Your task to perform on an android device: Open internet settings Image 0: 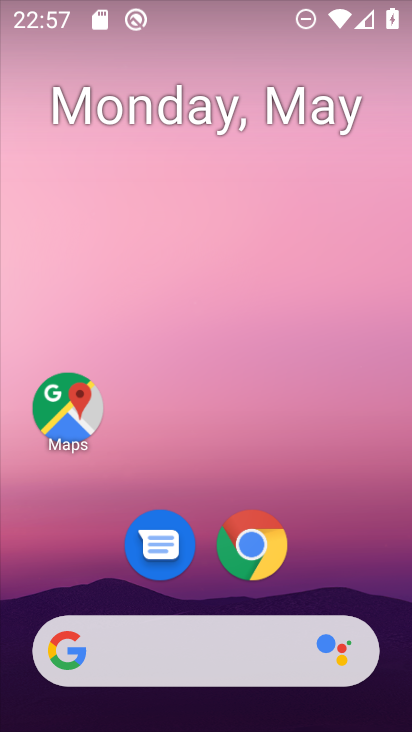
Step 0: drag from (334, 531) to (206, 1)
Your task to perform on an android device: Open internet settings Image 1: 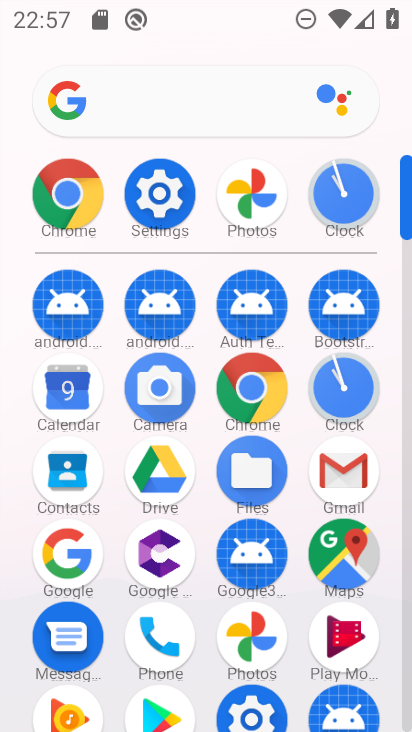
Step 1: click (158, 191)
Your task to perform on an android device: Open internet settings Image 2: 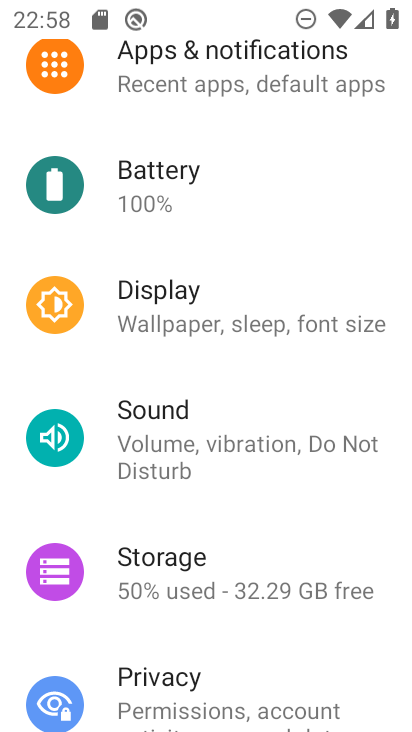
Step 2: drag from (256, 147) to (217, 688)
Your task to perform on an android device: Open internet settings Image 3: 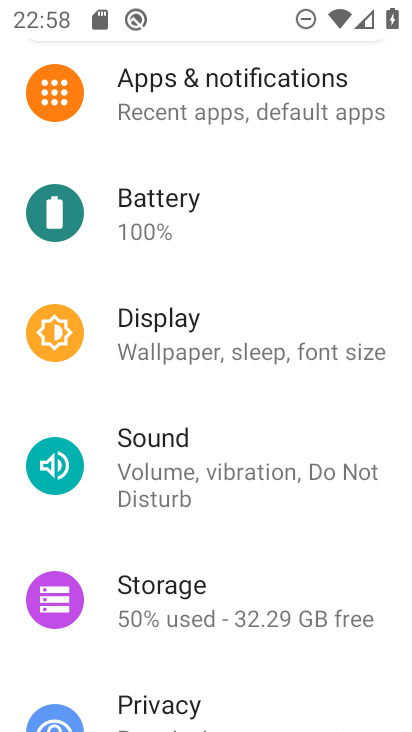
Step 3: drag from (227, 265) to (183, 570)
Your task to perform on an android device: Open internet settings Image 4: 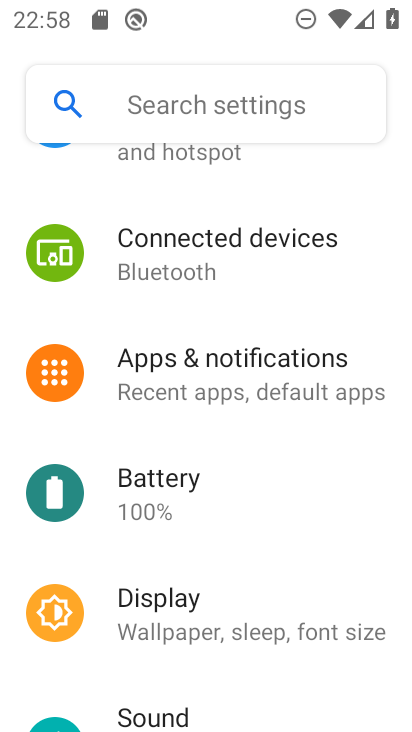
Step 4: drag from (199, 309) to (177, 723)
Your task to perform on an android device: Open internet settings Image 5: 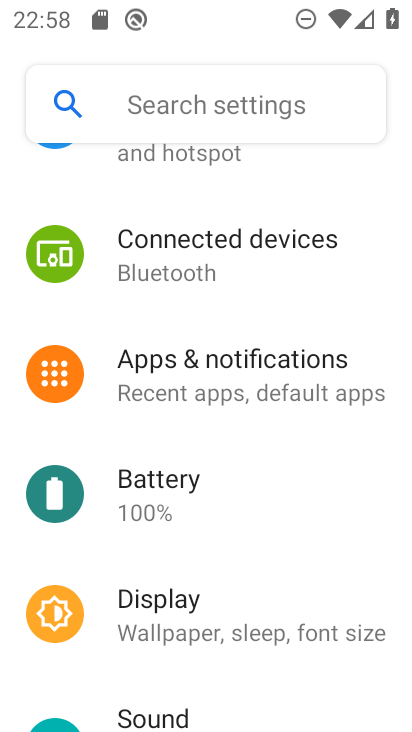
Step 5: click (194, 153)
Your task to perform on an android device: Open internet settings Image 6: 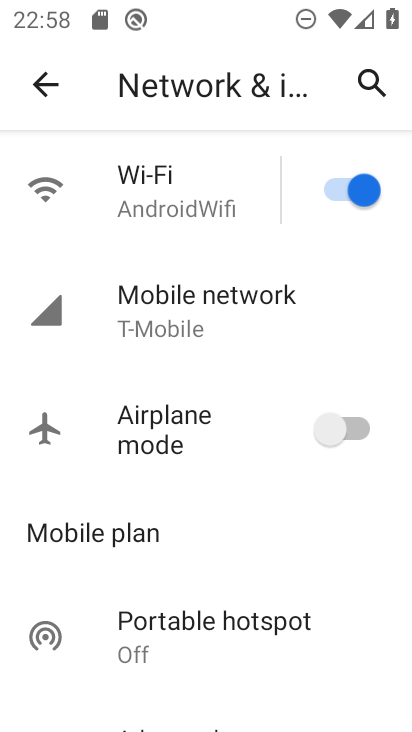
Step 6: click (169, 295)
Your task to perform on an android device: Open internet settings Image 7: 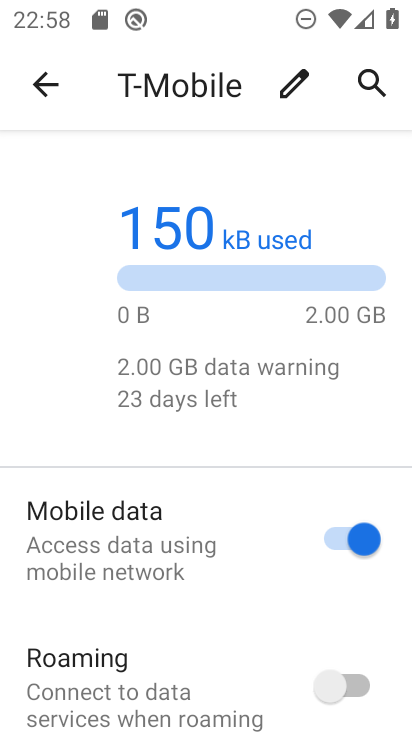
Step 7: task complete